Your task to perform on an android device: set the timer Image 0: 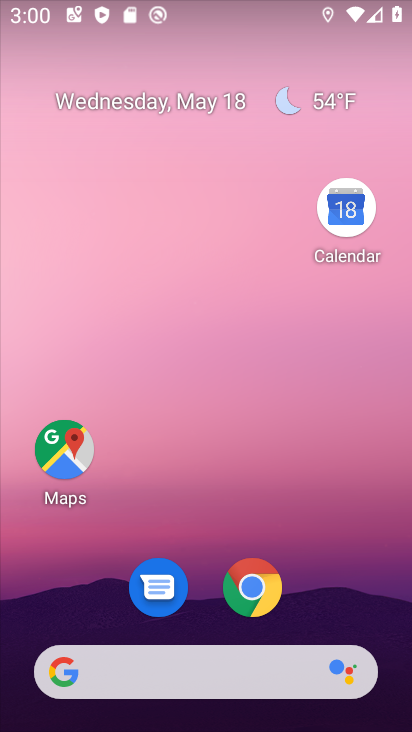
Step 0: drag from (196, 606) to (244, 130)
Your task to perform on an android device: set the timer Image 1: 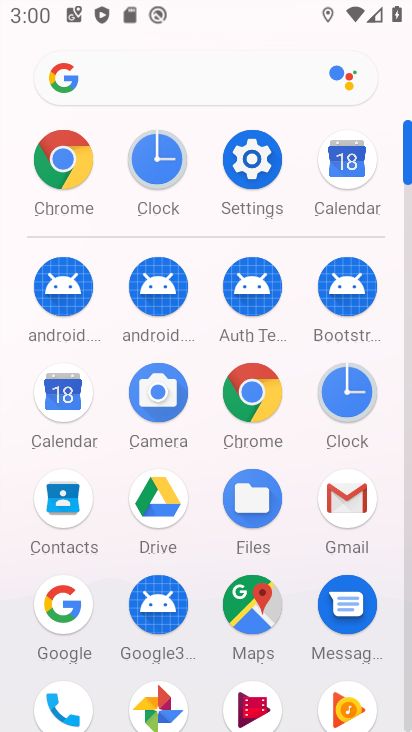
Step 1: click (323, 389)
Your task to perform on an android device: set the timer Image 2: 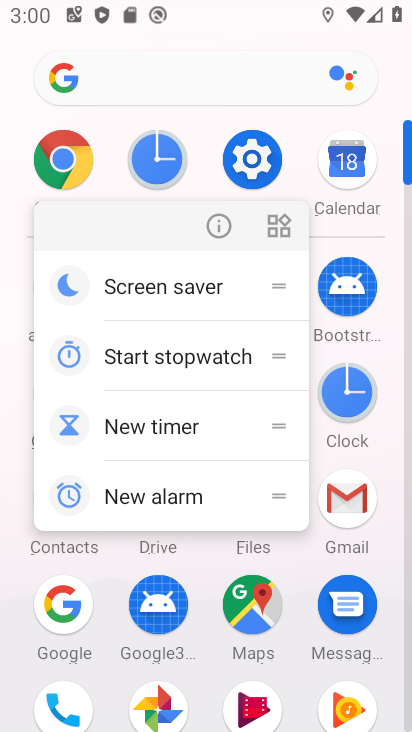
Step 2: click (216, 218)
Your task to perform on an android device: set the timer Image 3: 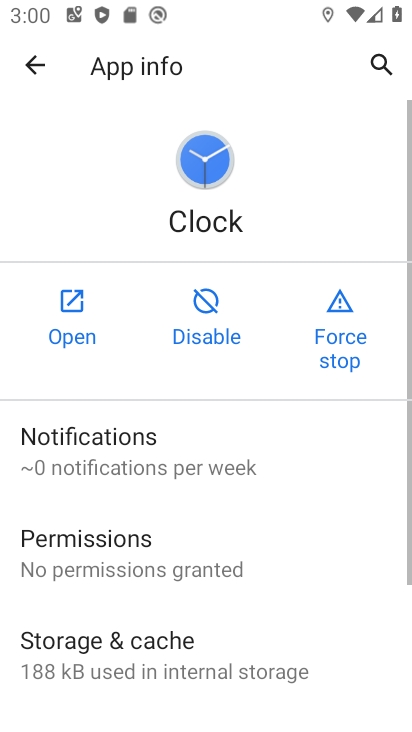
Step 3: click (83, 338)
Your task to perform on an android device: set the timer Image 4: 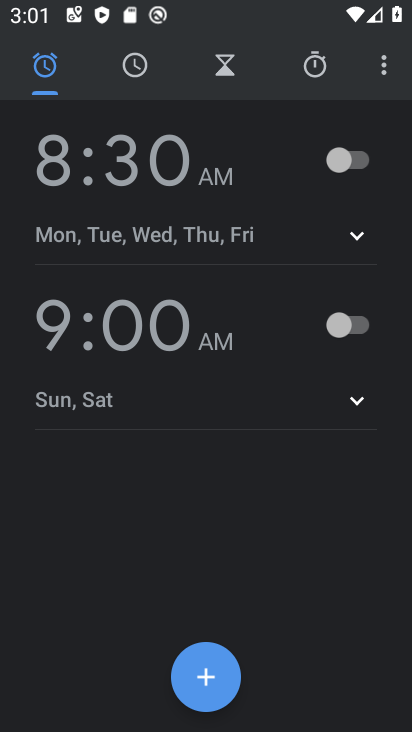
Step 4: click (211, 68)
Your task to perform on an android device: set the timer Image 5: 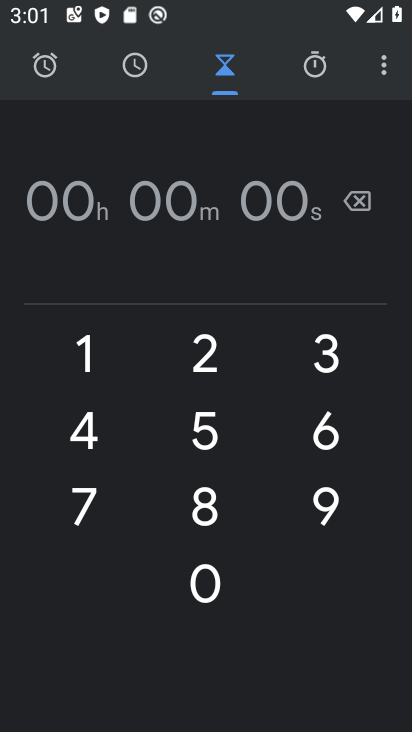
Step 5: click (181, 366)
Your task to perform on an android device: set the timer Image 6: 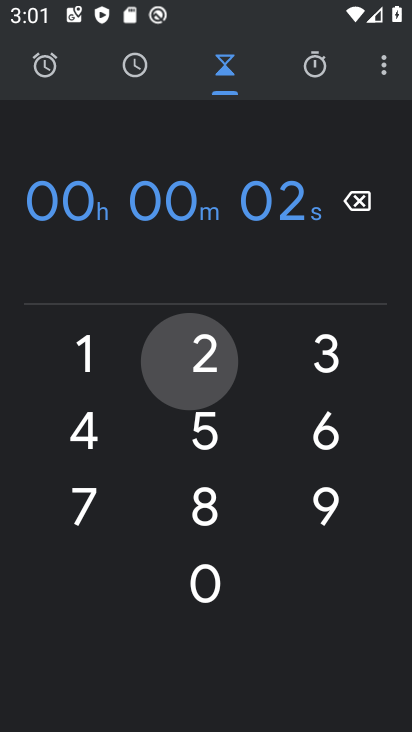
Step 6: click (344, 337)
Your task to perform on an android device: set the timer Image 7: 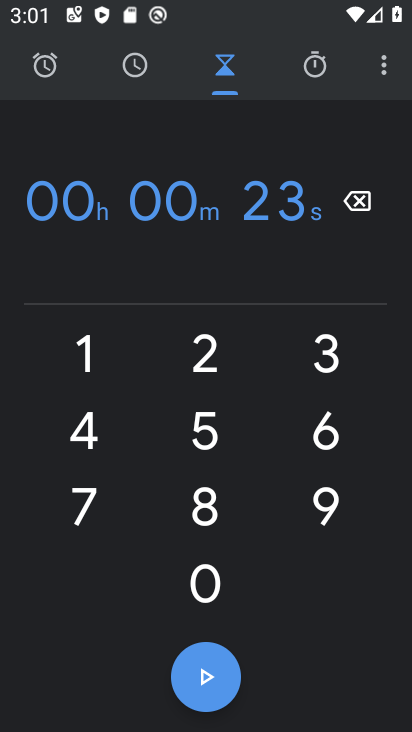
Step 7: task complete